Your task to perform on an android device: Open privacy settings Image 0: 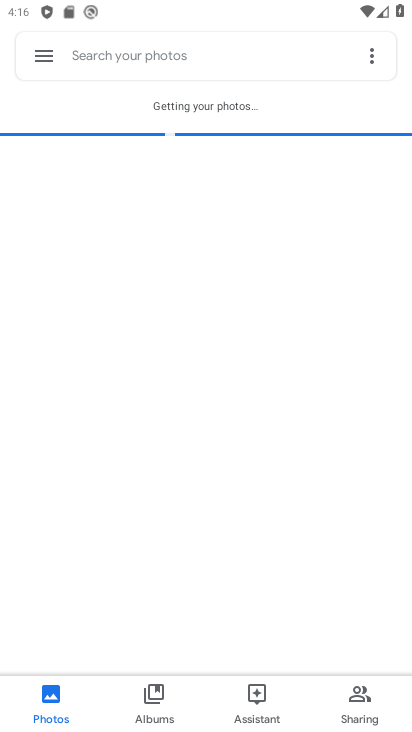
Step 0: press back button
Your task to perform on an android device: Open privacy settings Image 1: 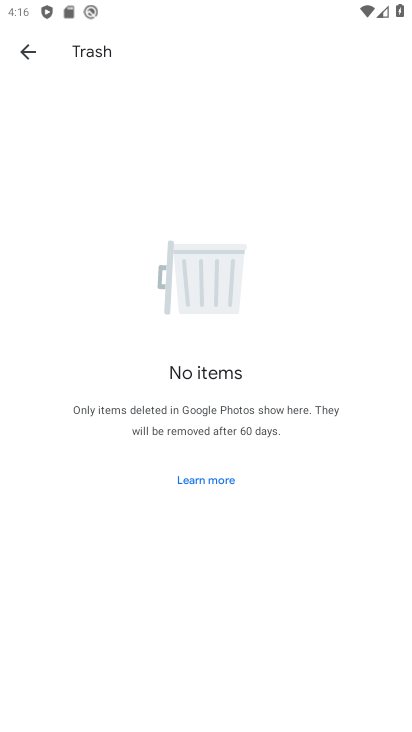
Step 1: press home button
Your task to perform on an android device: Open privacy settings Image 2: 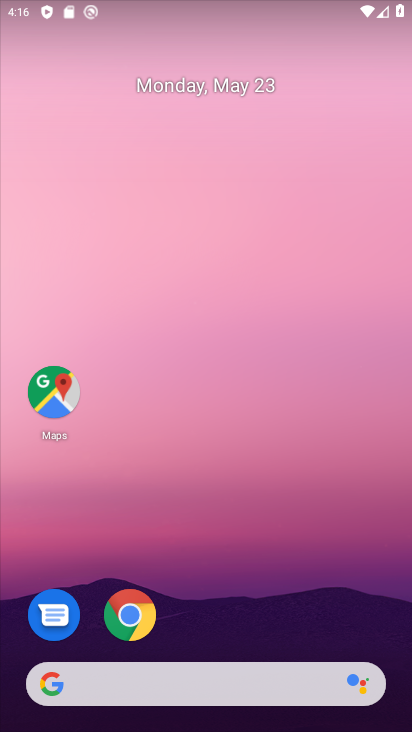
Step 2: drag from (191, 626) to (259, 66)
Your task to perform on an android device: Open privacy settings Image 3: 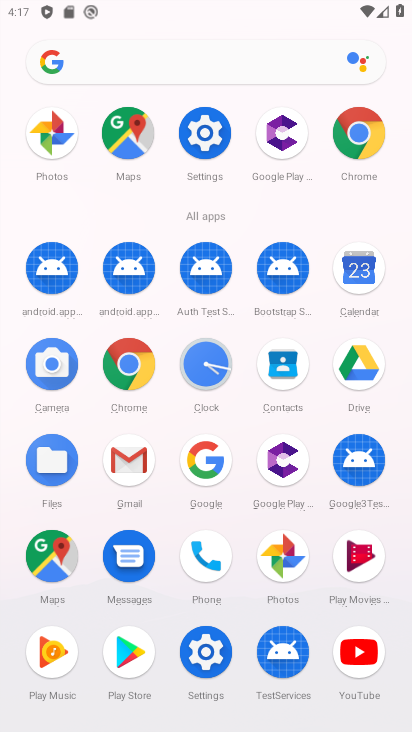
Step 3: click (204, 151)
Your task to perform on an android device: Open privacy settings Image 4: 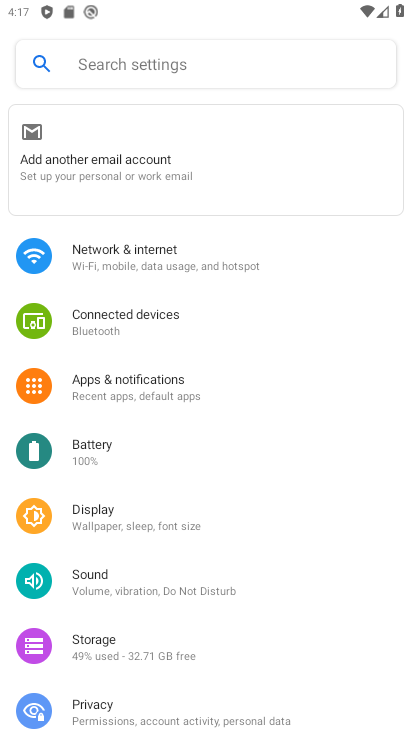
Step 4: click (103, 709)
Your task to perform on an android device: Open privacy settings Image 5: 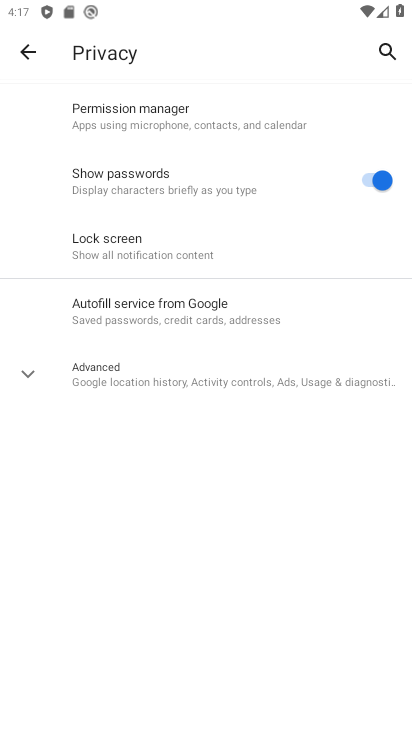
Step 5: task complete